Your task to perform on an android device: Search for razer blade on ebay, select the first entry, and add it to the cart. Image 0: 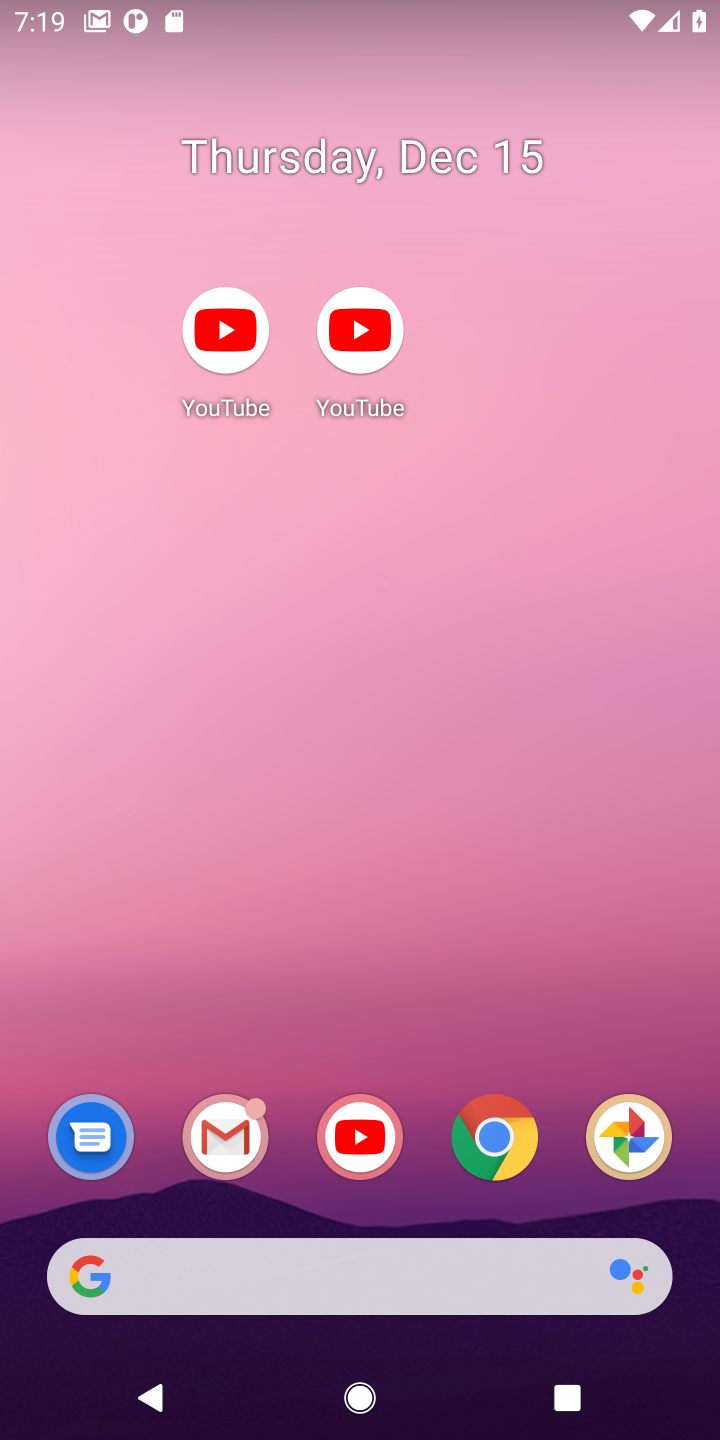
Step 0: drag from (281, 1070) to (340, 238)
Your task to perform on an android device: Search for razer blade on ebay, select the first entry, and add it to the cart. Image 1: 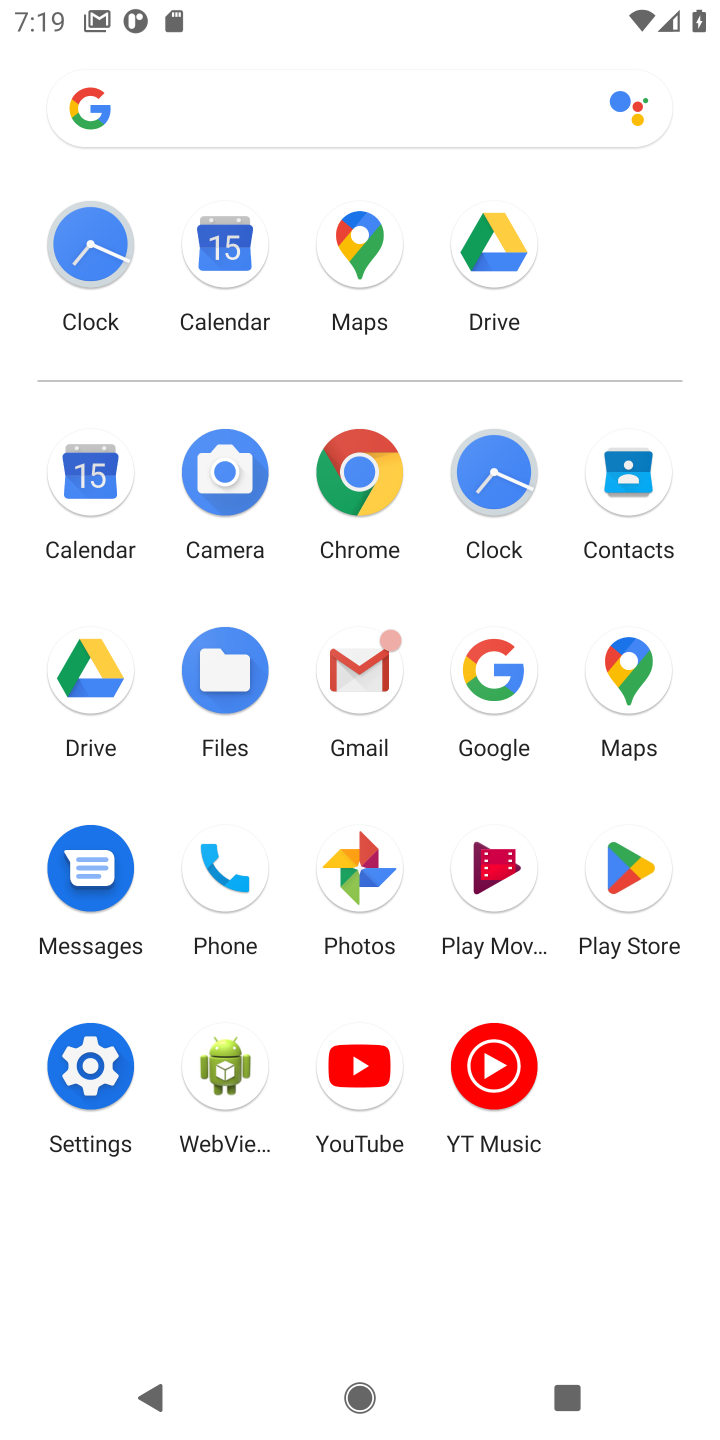
Step 1: click (498, 657)
Your task to perform on an android device: Search for razer blade on ebay, select the first entry, and add it to the cart. Image 2: 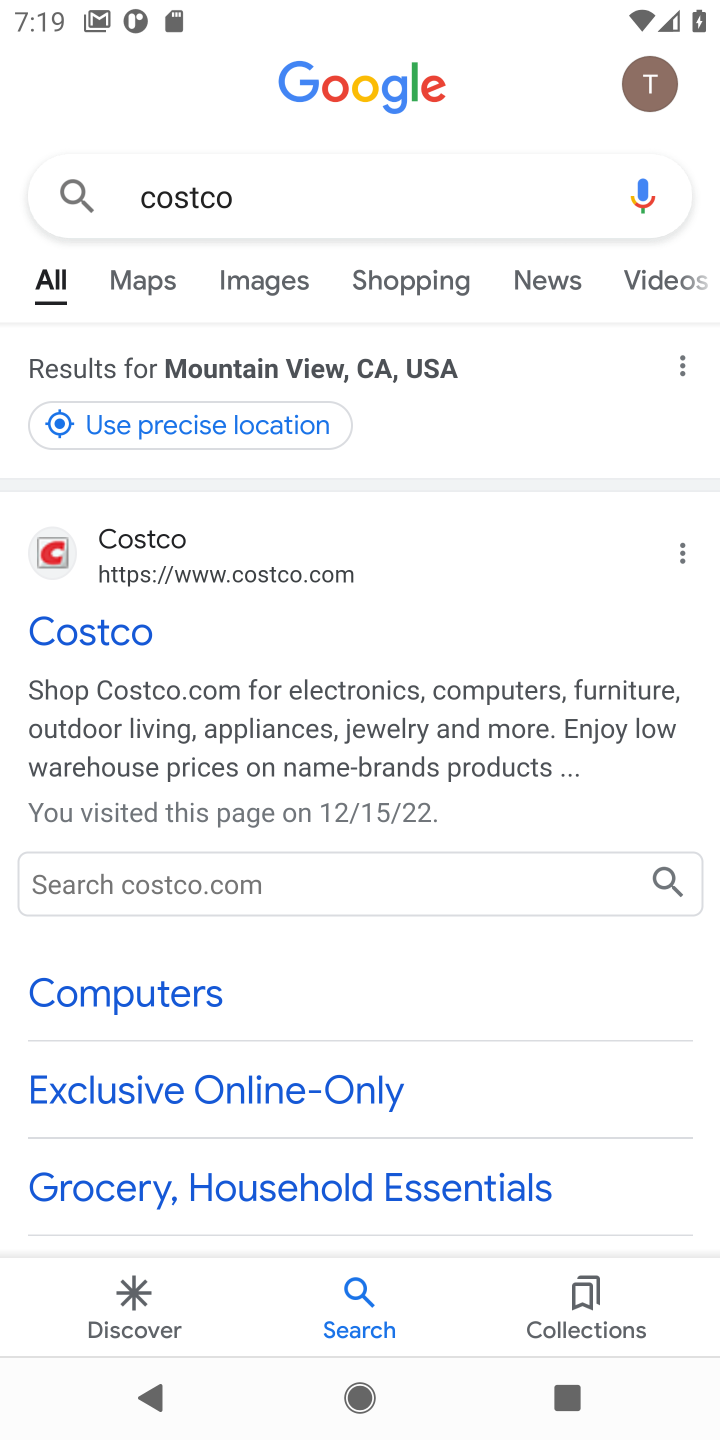
Step 2: click (216, 205)
Your task to perform on an android device: Search for razer blade on ebay, select the first entry, and add it to the cart. Image 3: 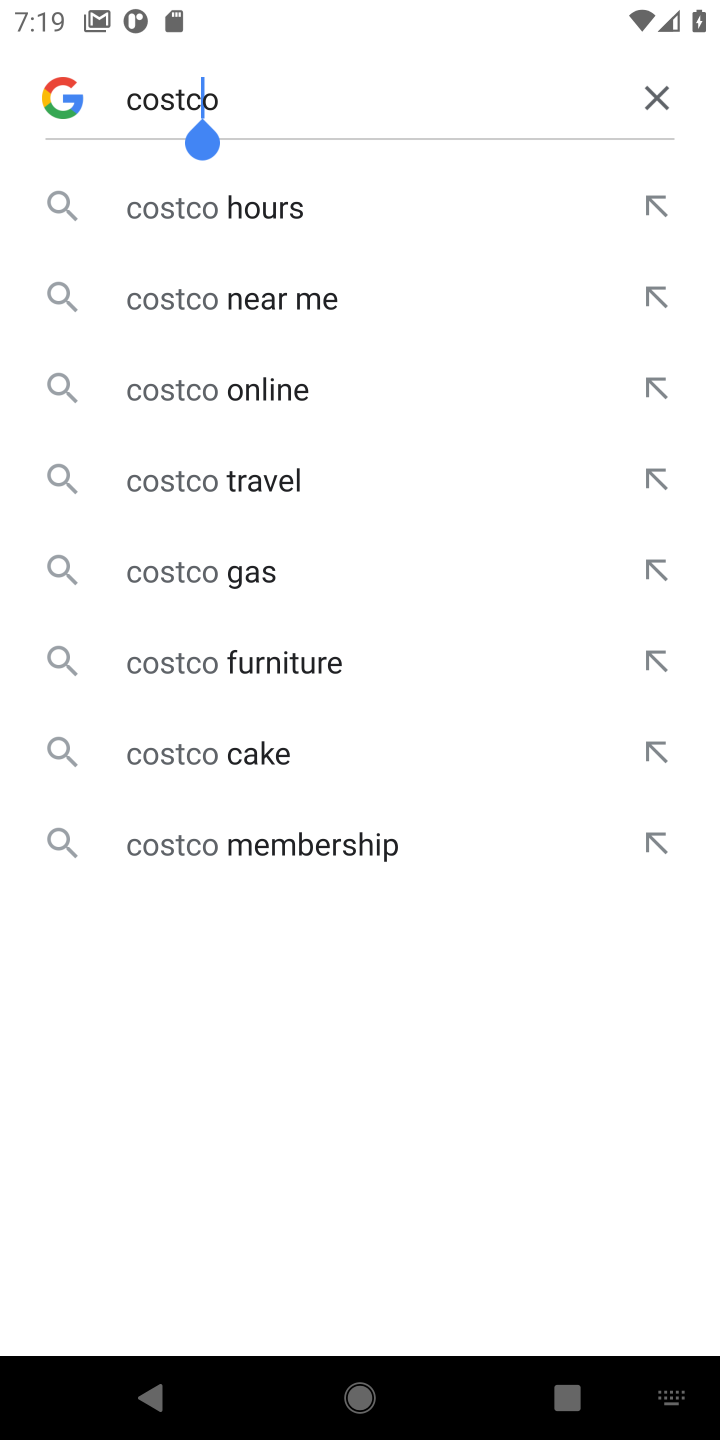
Step 3: click (642, 107)
Your task to perform on an android device: Search for razer blade on ebay, select the first entry, and add it to the cart. Image 4: 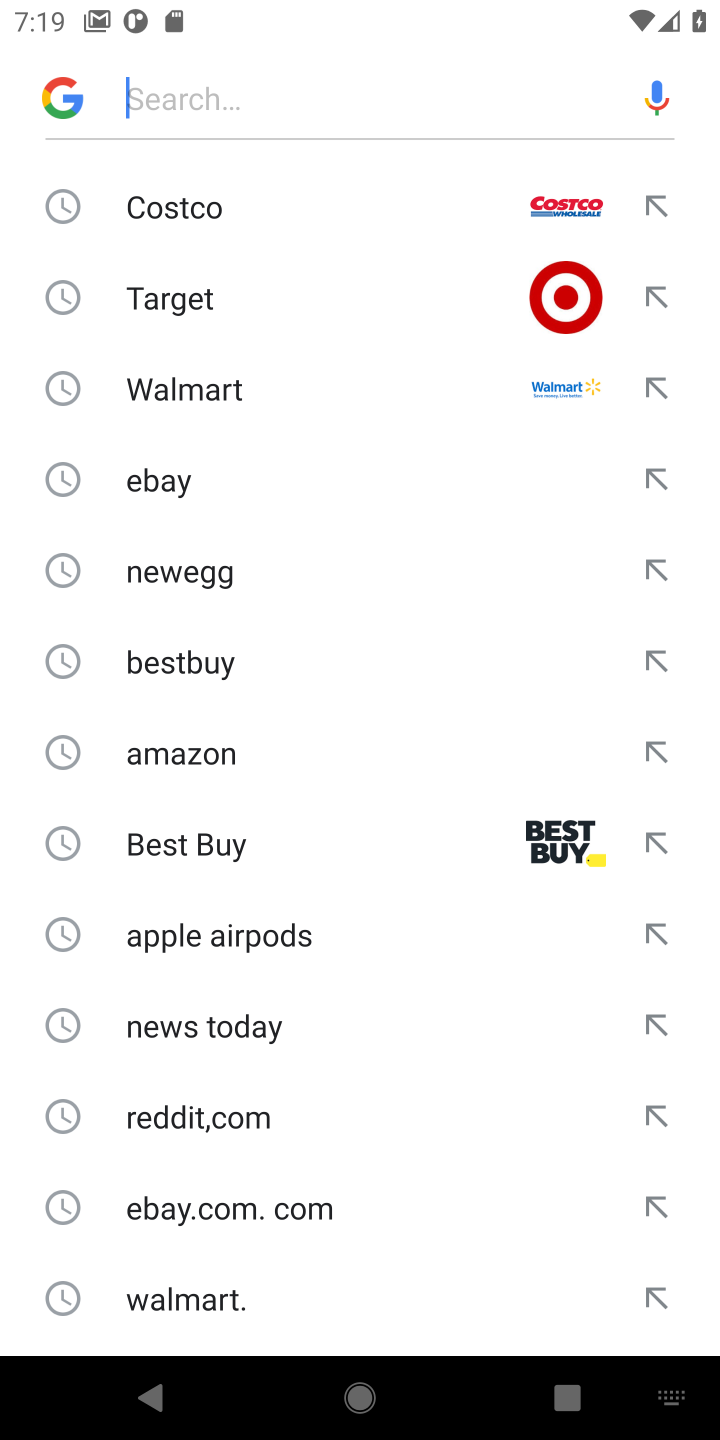
Step 4: click (164, 482)
Your task to perform on an android device: Search for razer blade on ebay, select the first entry, and add it to the cart. Image 5: 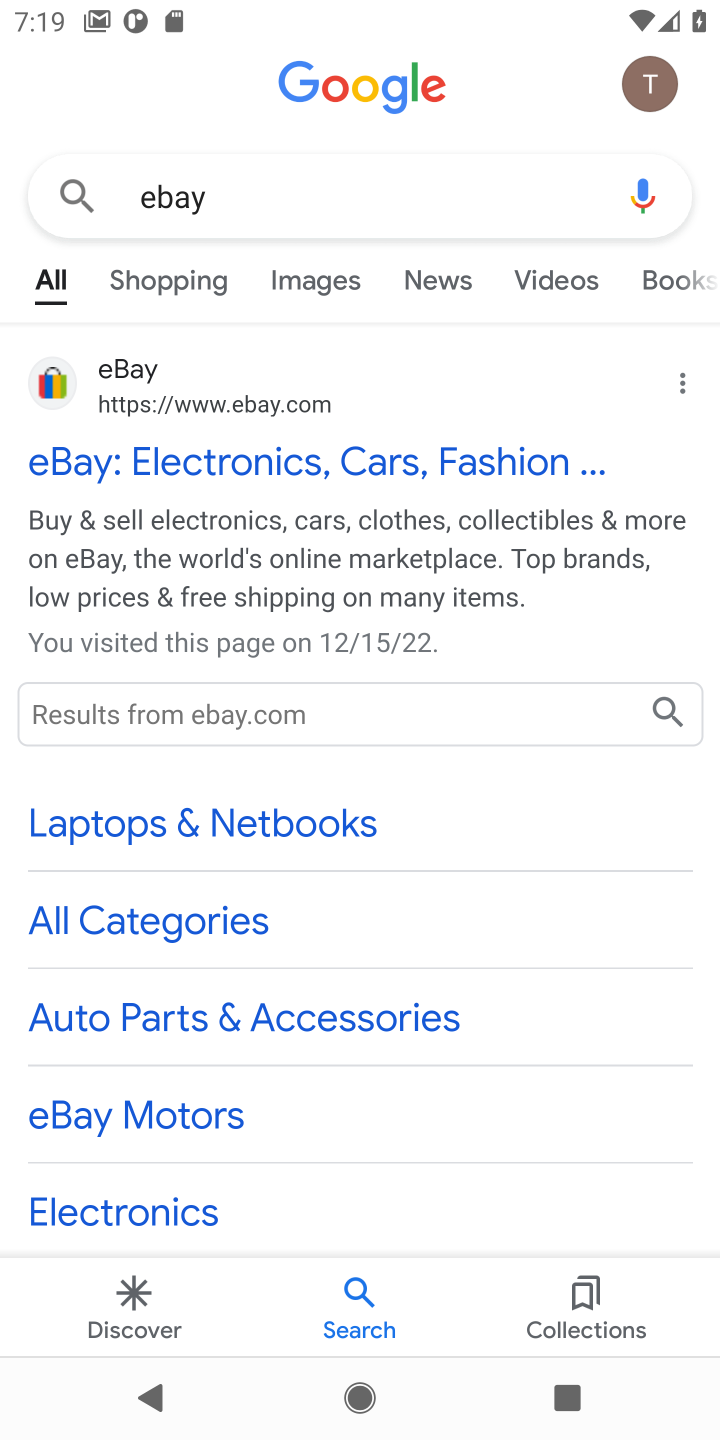
Step 5: click (133, 469)
Your task to perform on an android device: Search for razer blade on ebay, select the first entry, and add it to the cart. Image 6: 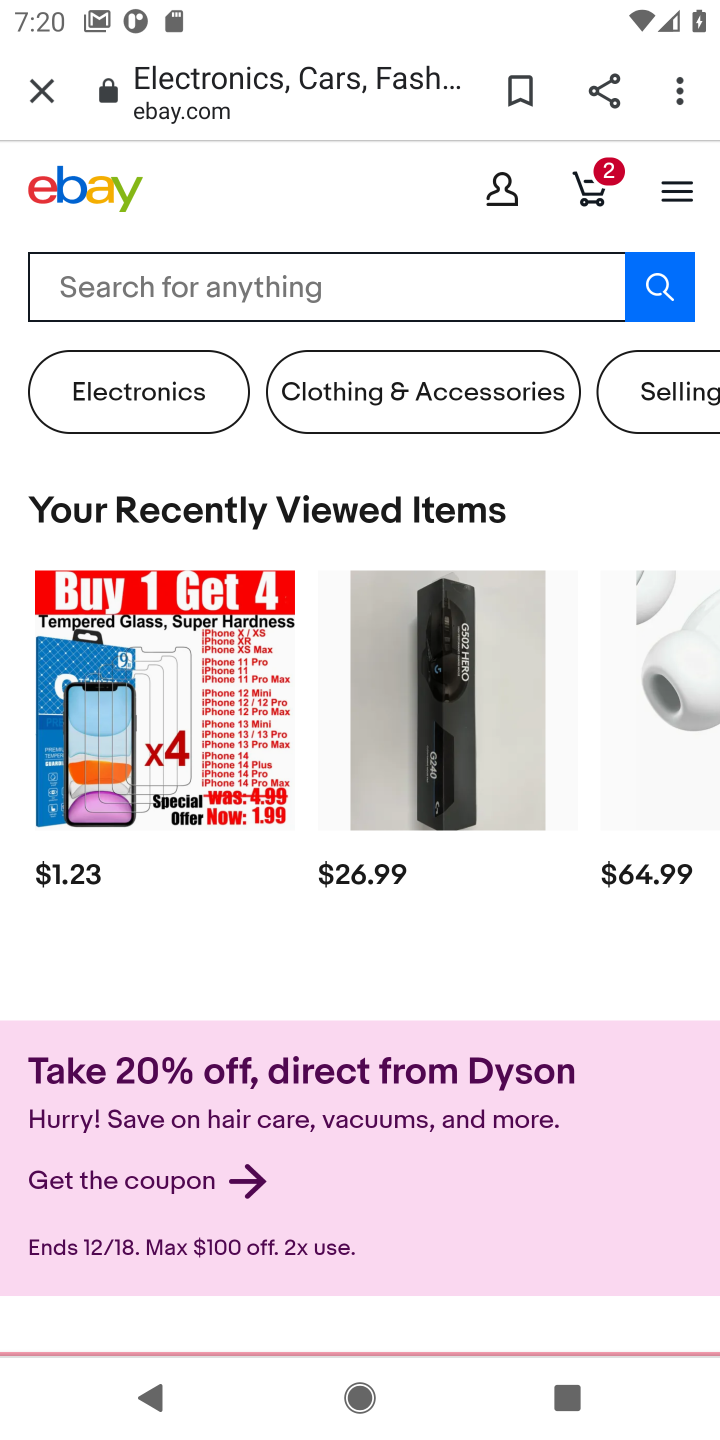
Step 6: click (132, 272)
Your task to perform on an android device: Search for razer blade on ebay, select the first entry, and add it to the cart. Image 7: 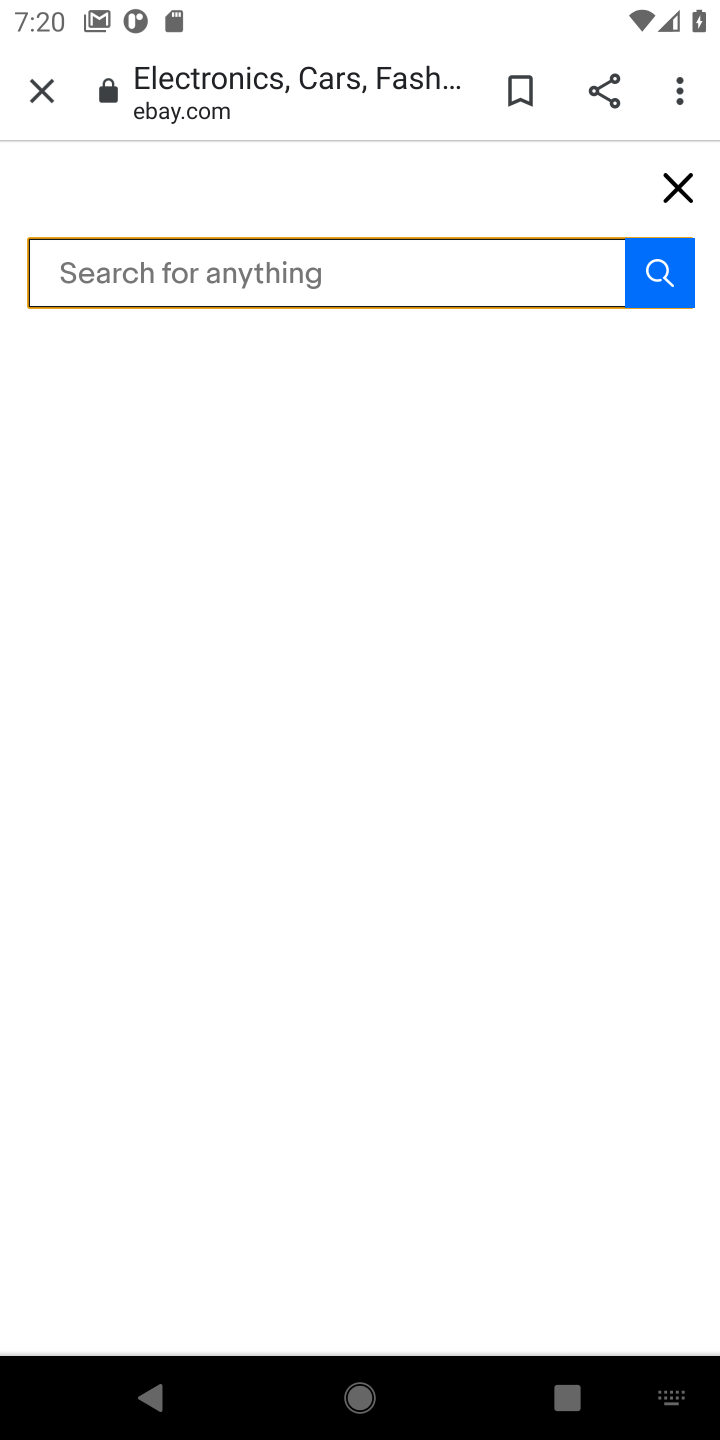
Step 7: type "razer blade"
Your task to perform on an android device: Search for razer blade on ebay, select the first entry, and add it to the cart. Image 8: 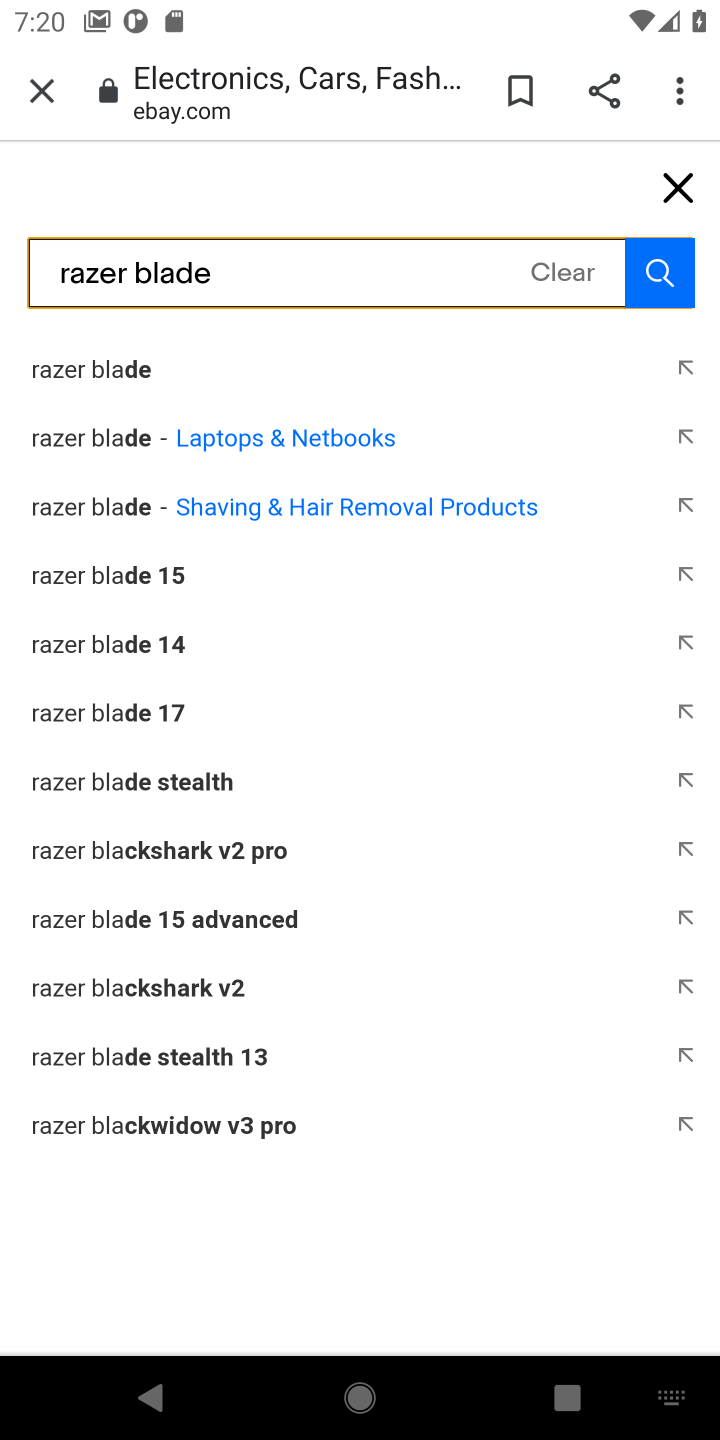
Step 8: click (106, 377)
Your task to perform on an android device: Search for razer blade on ebay, select the first entry, and add it to the cart. Image 9: 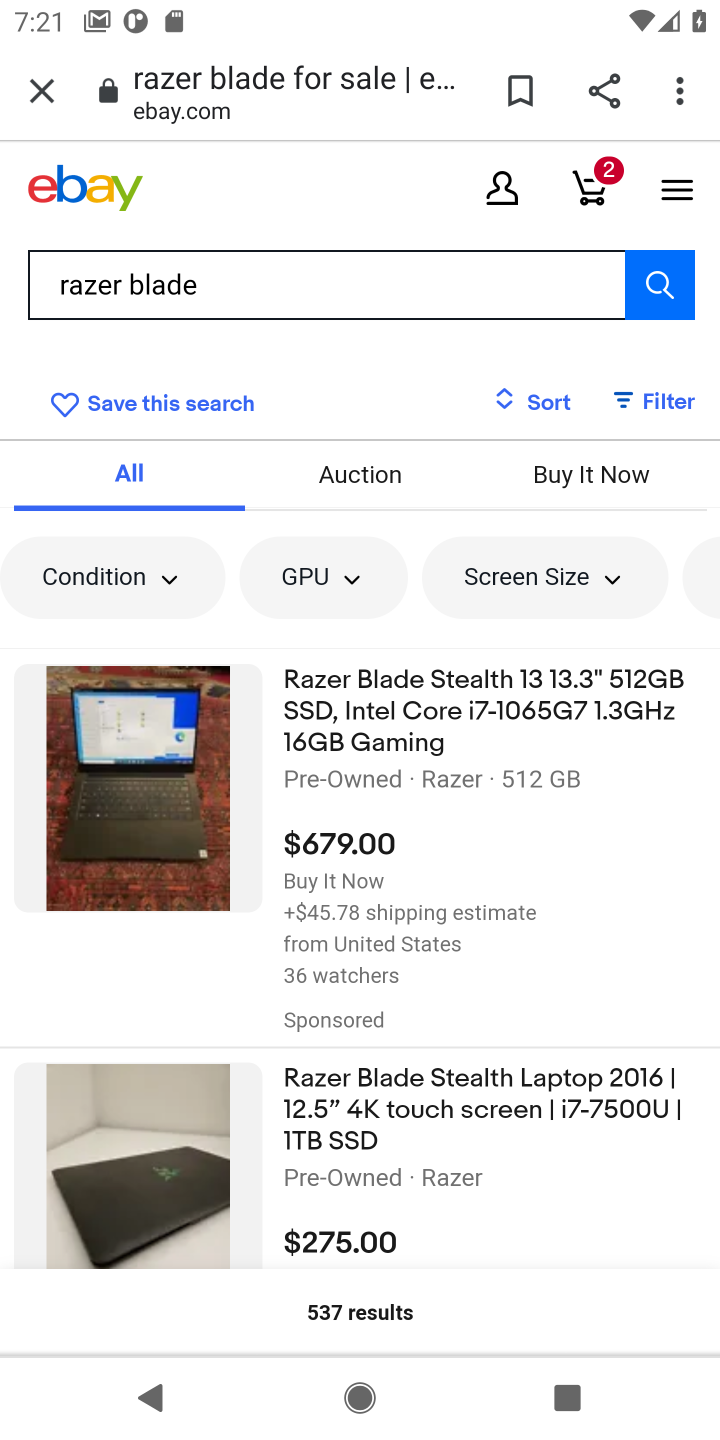
Step 9: click (467, 730)
Your task to perform on an android device: Search for razer blade on ebay, select the first entry, and add it to the cart. Image 10: 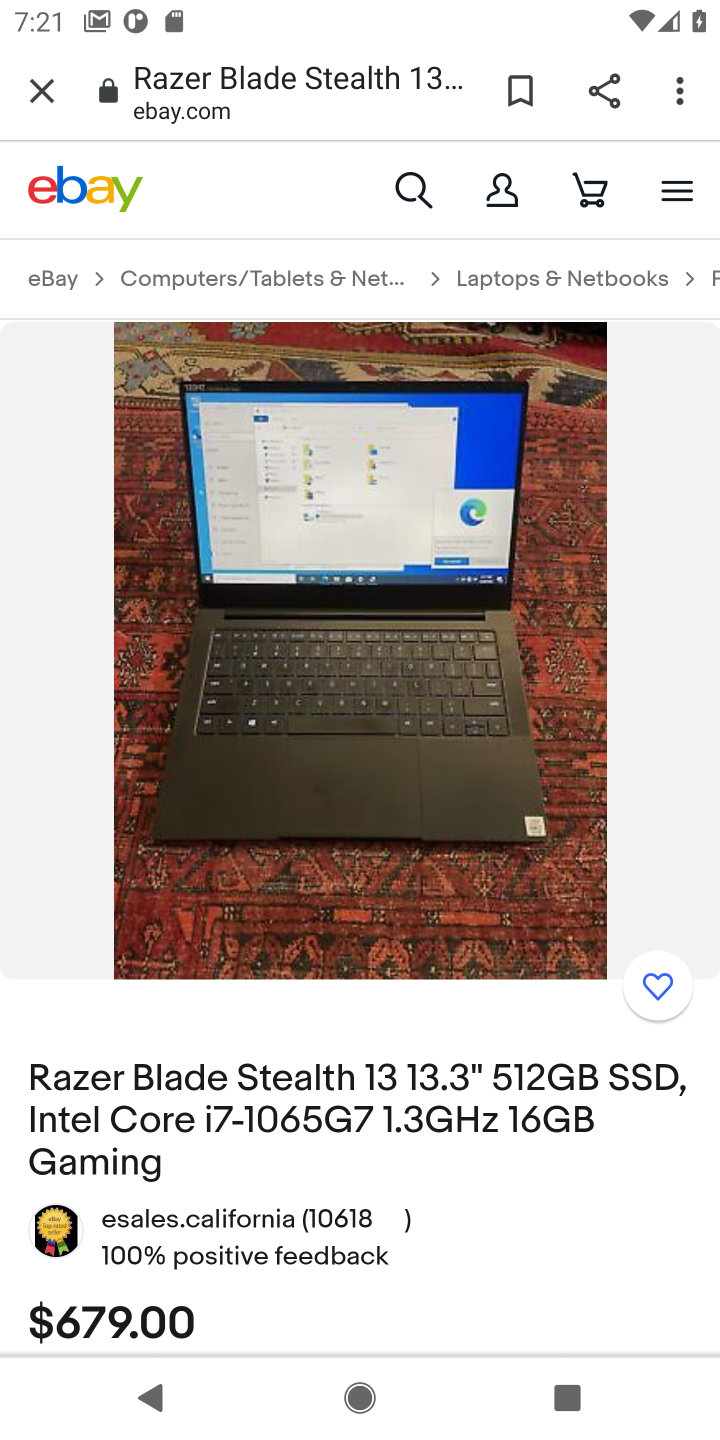
Step 10: drag from (304, 1152) to (306, 673)
Your task to perform on an android device: Search for razer blade on ebay, select the first entry, and add it to the cart. Image 11: 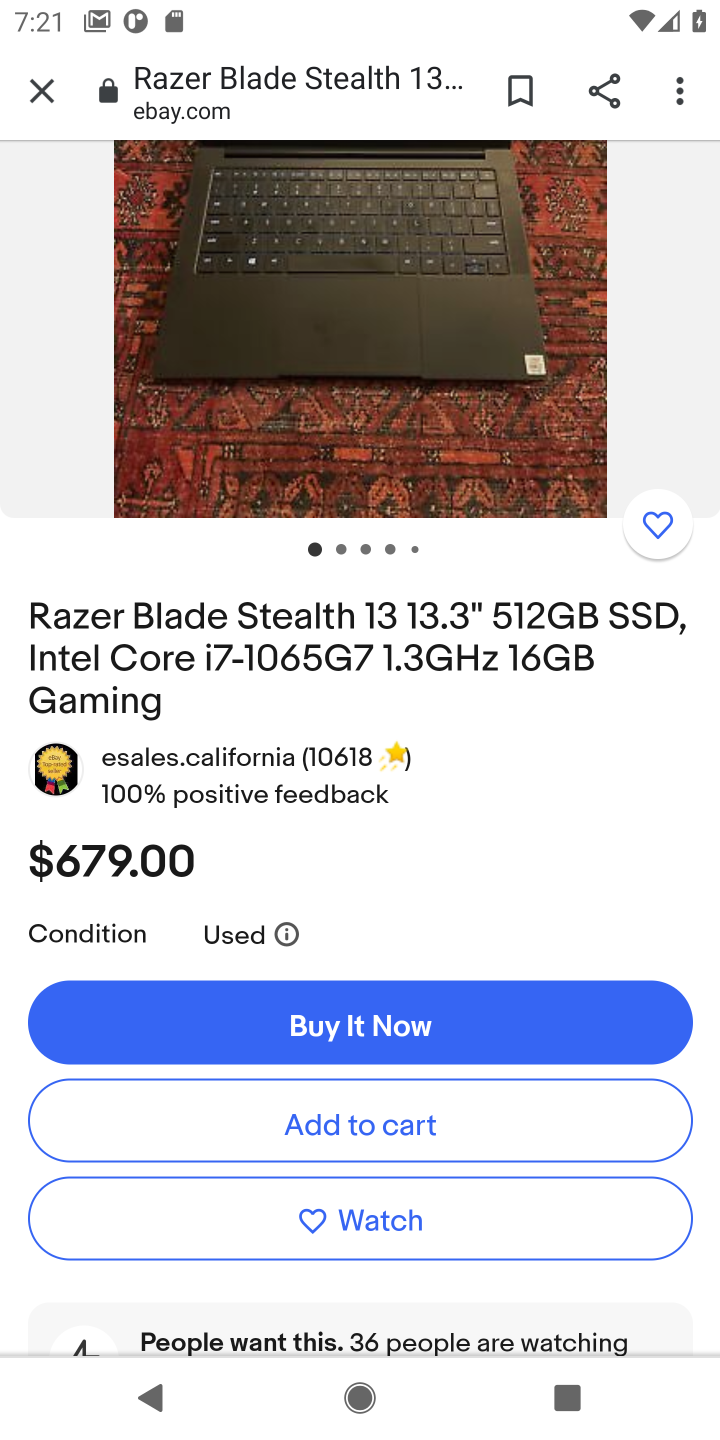
Step 11: click (319, 1134)
Your task to perform on an android device: Search for razer blade on ebay, select the first entry, and add it to the cart. Image 12: 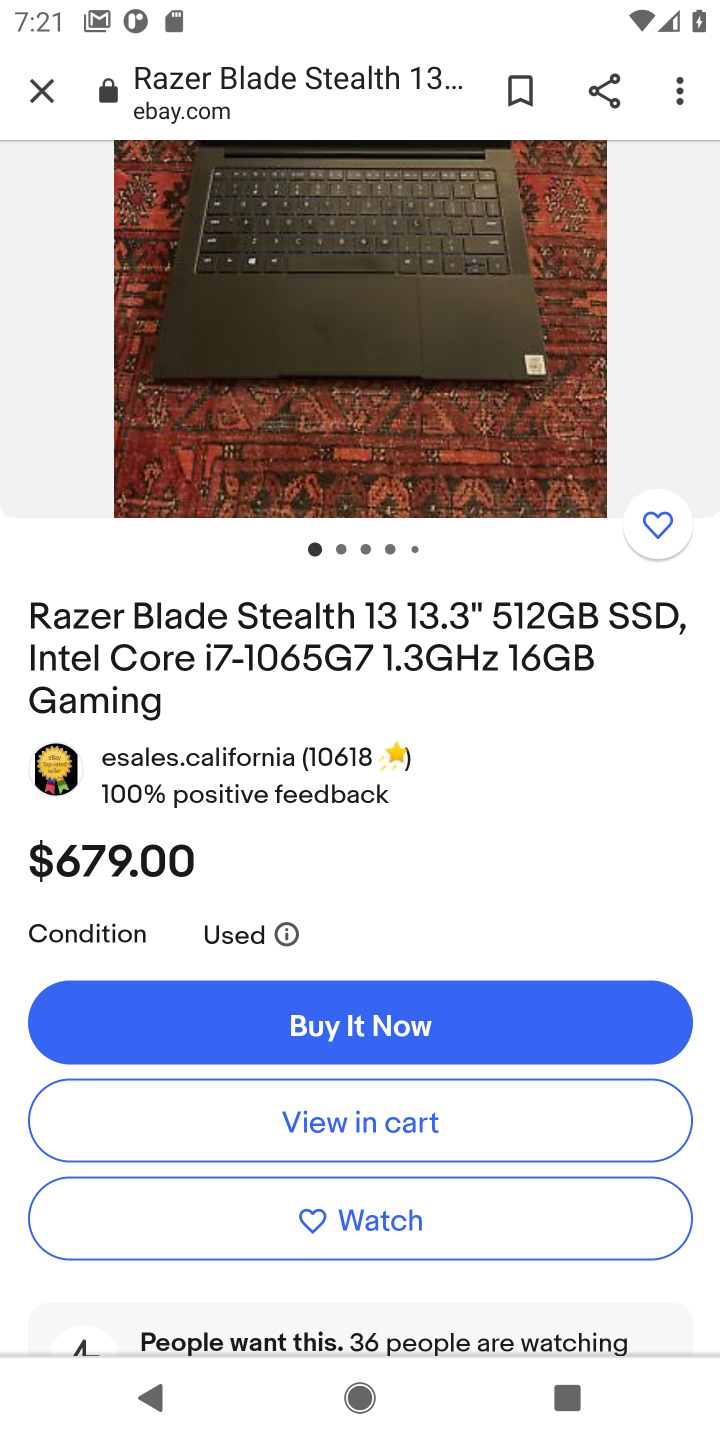
Step 12: click (319, 1129)
Your task to perform on an android device: Search for razer blade on ebay, select the first entry, and add it to the cart. Image 13: 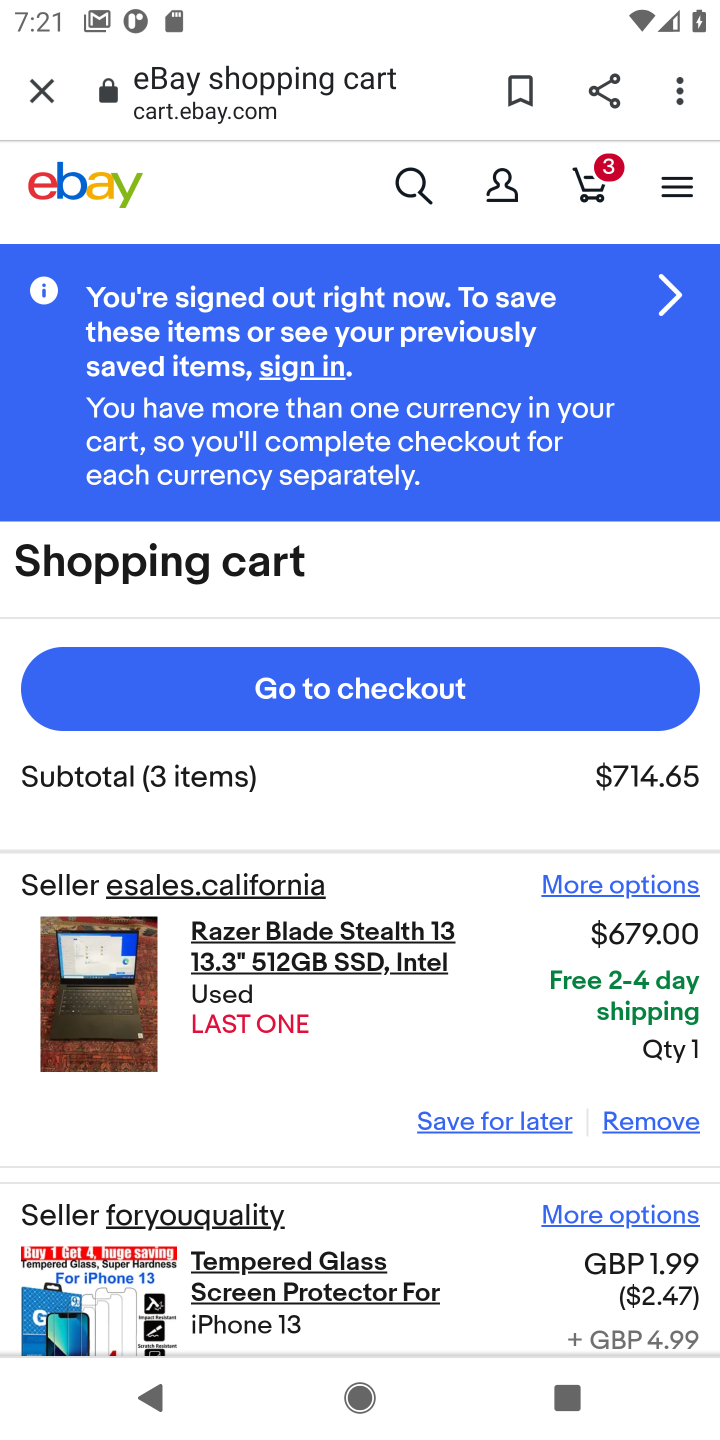
Step 13: task complete